Your task to perform on an android device: turn on data saver in the chrome app Image 0: 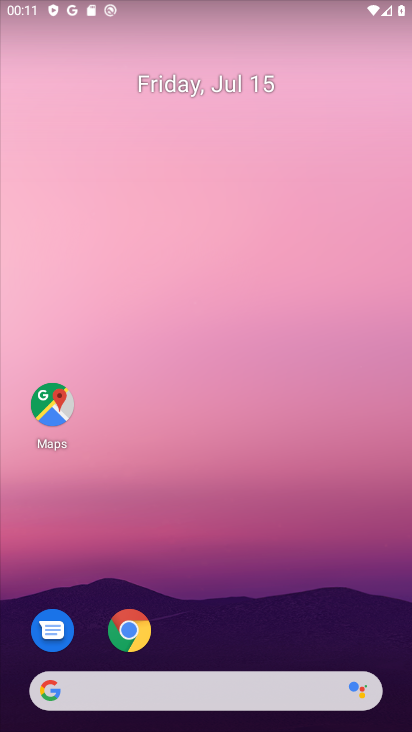
Step 0: click (131, 643)
Your task to perform on an android device: turn on data saver in the chrome app Image 1: 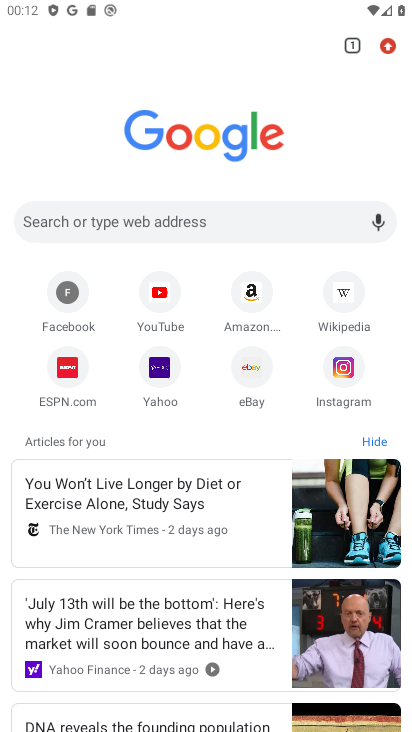
Step 1: click (383, 53)
Your task to perform on an android device: turn on data saver in the chrome app Image 2: 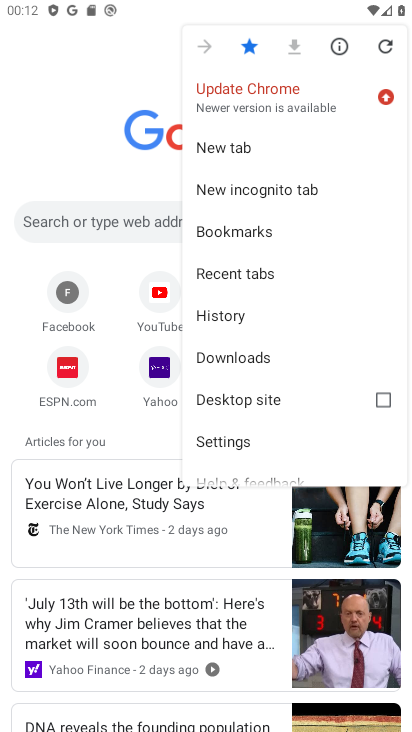
Step 2: click (232, 435)
Your task to perform on an android device: turn on data saver in the chrome app Image 3: 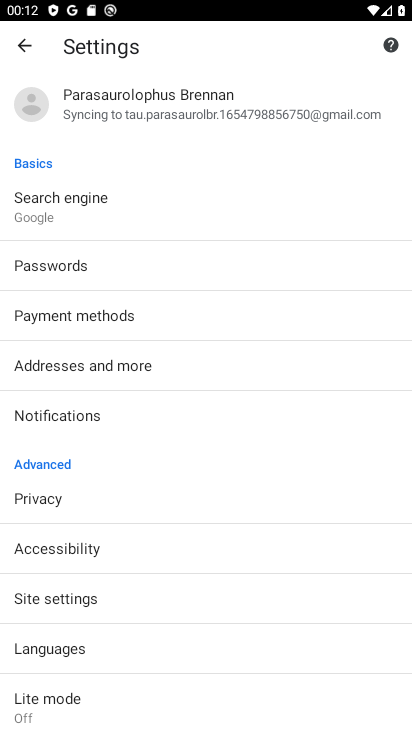
Step 3: drag from (127, 601) to (139, 443)
Your task to perform on an android device: turn on data saver in the chrome app Image 4: 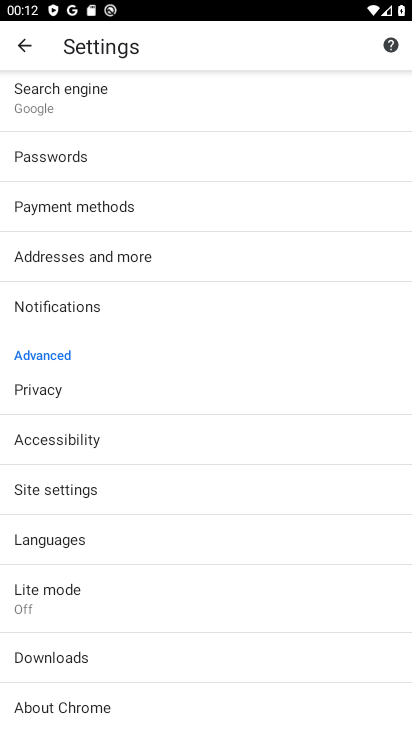
Step 4: click (101, 611)
Your task to perform on an android device: turn on data saver in the chrome app Image 5: 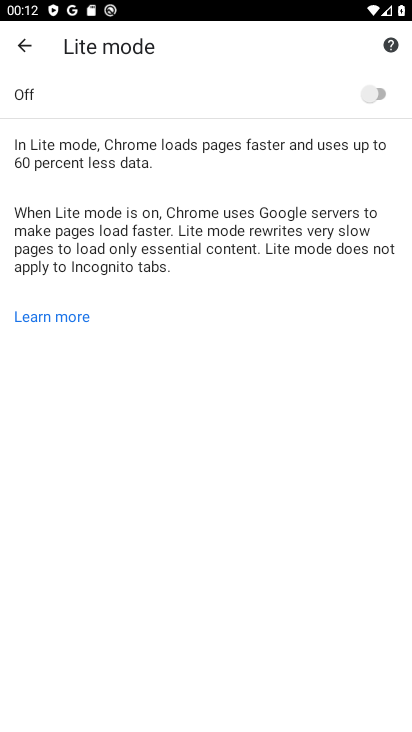
Step 5: click (371, 82)
Your task to perform on an android device: turn on data saver in the chrome app Image 6: 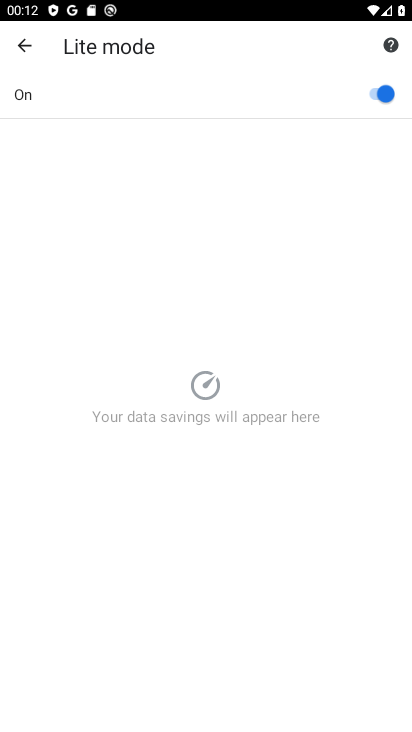
Step 6: task complete